Your task to perform on an android device: toggle improve location accuracy Image 0: 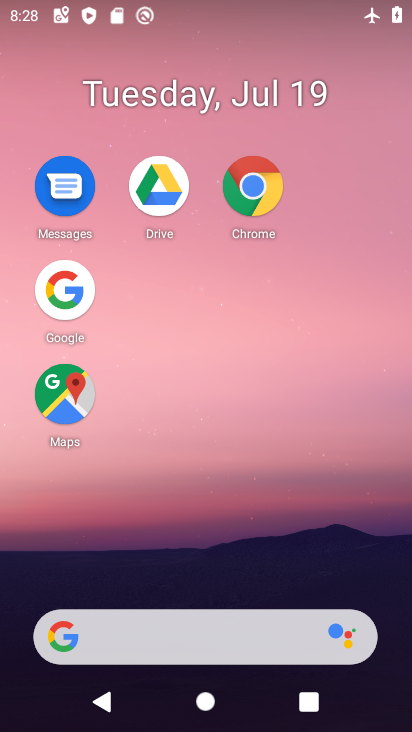
Step 0: drag from (198, 595) to (251, 0)
Your task to perform on an android device: toggle improve location accuracy Image 1: 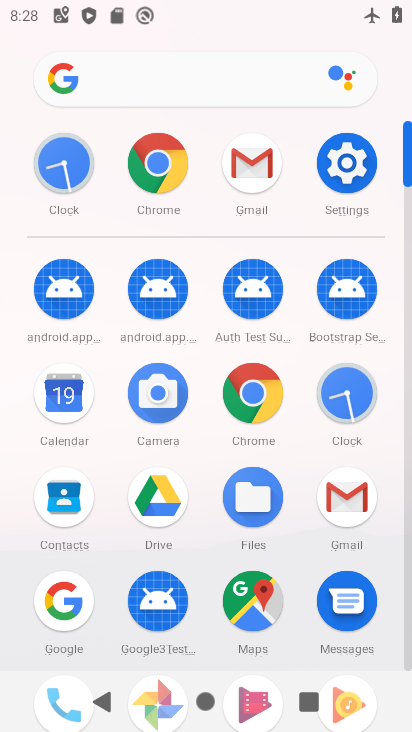
Step 1: click (342, 181)
Your task to perform on an android device: toggle improve location accuracy Image 2: 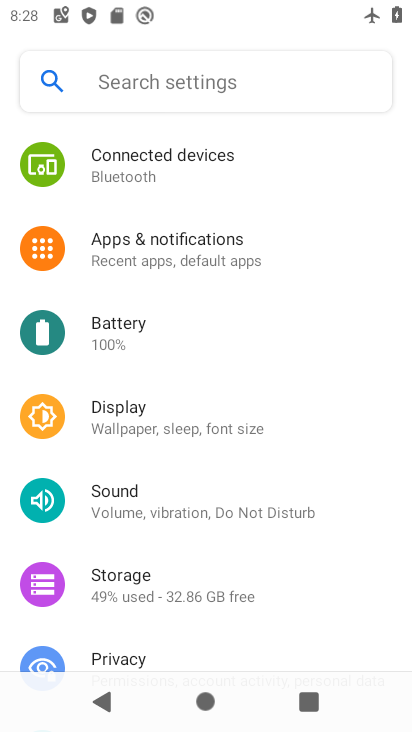
Step 2: drag from (320, 580) to (348, 16)
Your task to perform on an android device: toggle improve location accuracy Image 3: 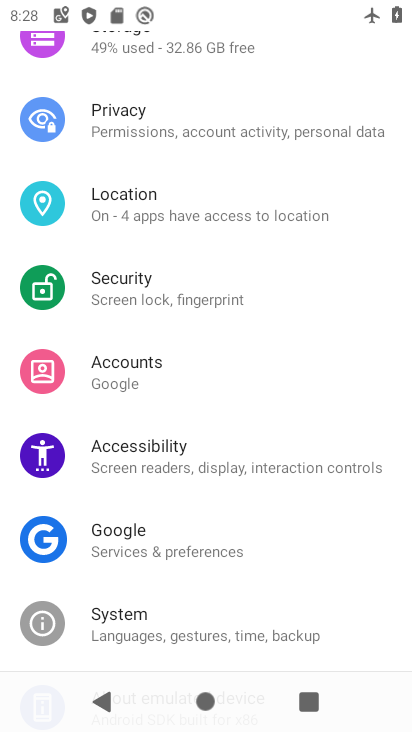
Step 3: click (117, 199)
Your task to perform on an android device: toggle improve location accuracy Image 4: 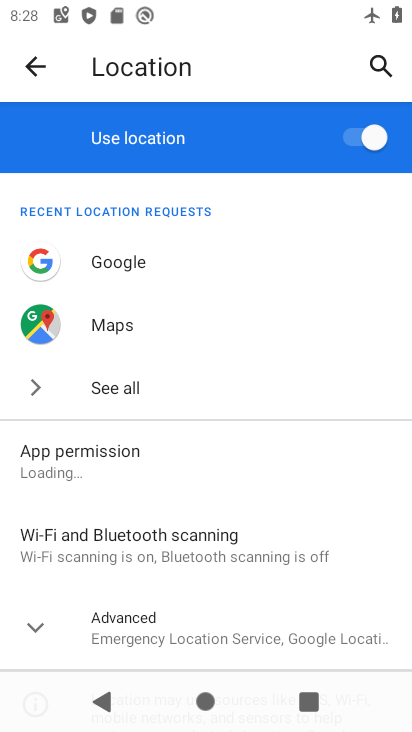
Step 4: click (133, 626)
Your task to perform on an android device: toggle improve location accuracy Image 5: 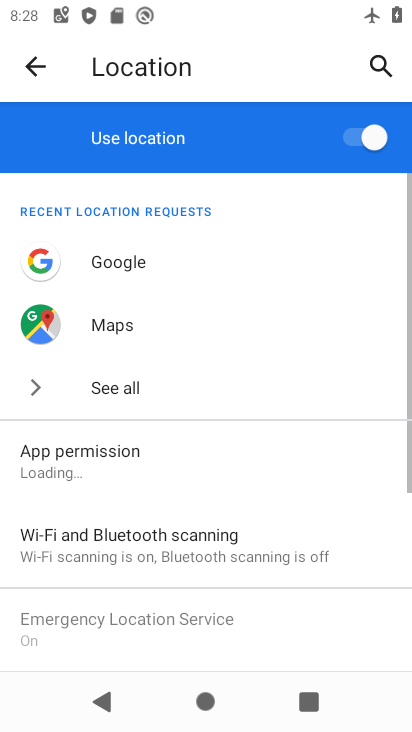
Step 5: drag from (133, 626) to (142, 283)
Your task to perform on an android device: toggle improve location accuracy Image 6: 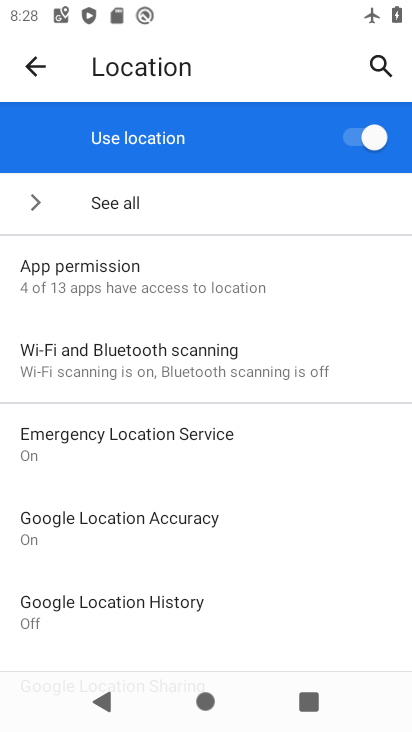
Step 6: click (159, 511)
Your task to perform on an android device: toggle improve location accuracy Image 7: 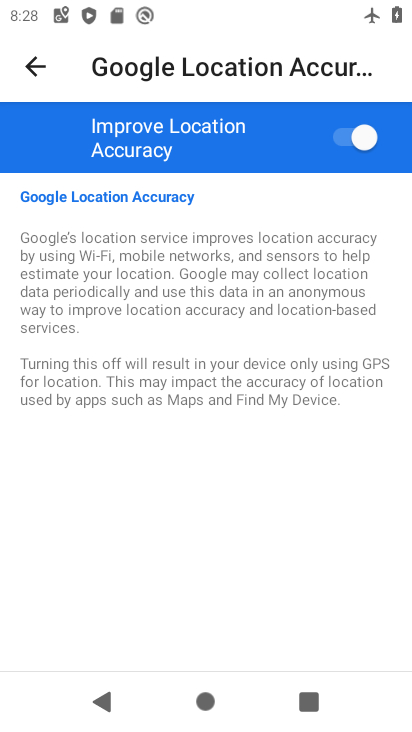
Step 7: click (346, 134)
Your task to perform on an android device: toggle improve location accuracy Image 8: 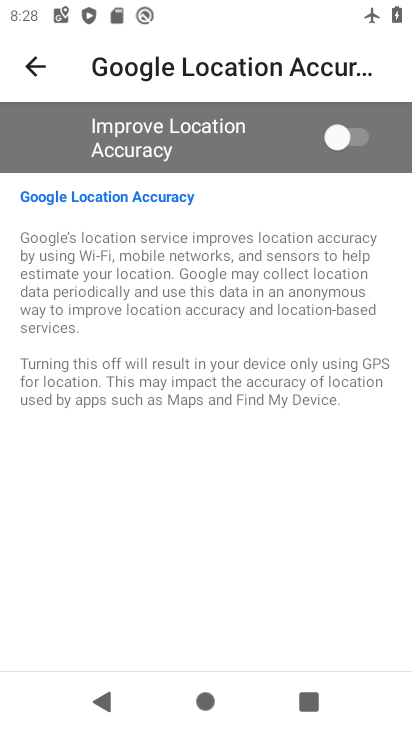
Step 8: task complete